Your task to perform on an android device: set default search engine in the chrome app Image 0: 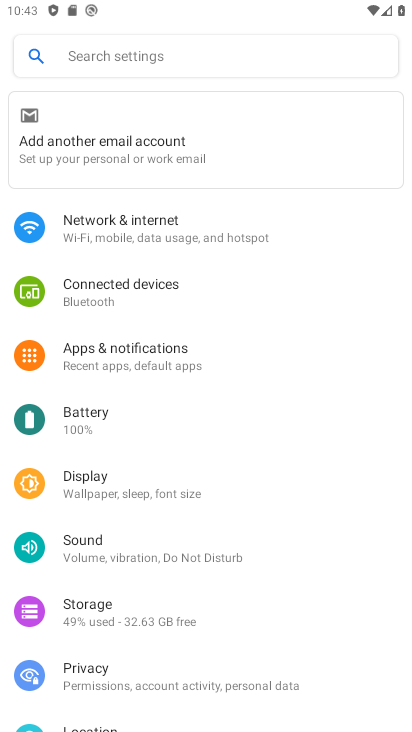
Step 0: press home button
Your task to perform on an android device: set default search engine in the chrome app Image 1: 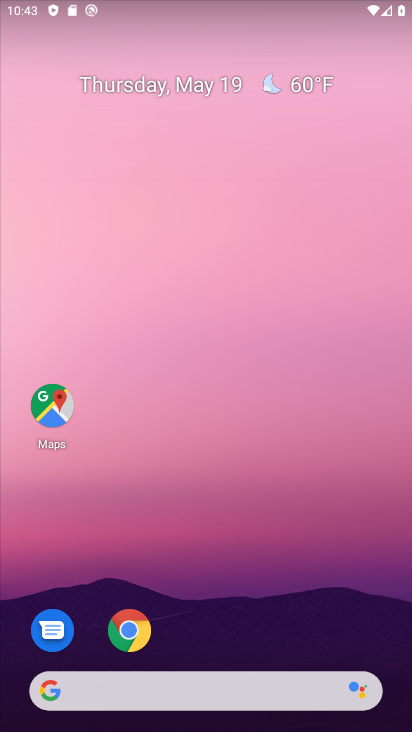
Step 1: click (136, 634)
Your task to perform on an android device: set default search engine in the chrome app Image 2: 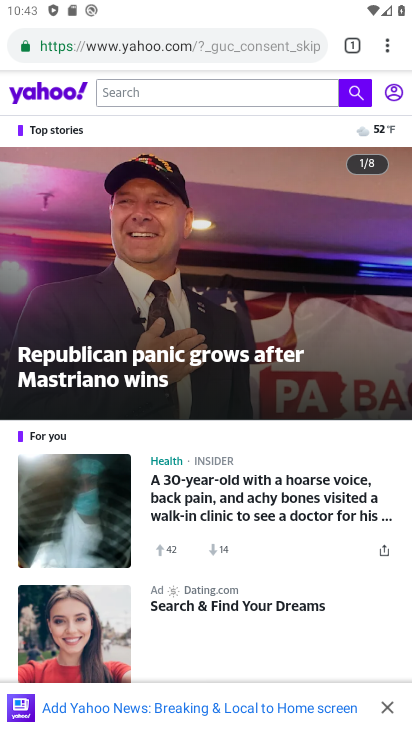
Step 2: click (391, 41)
Your task to perform on an android device: set default search engine in the chrome app Image 3: 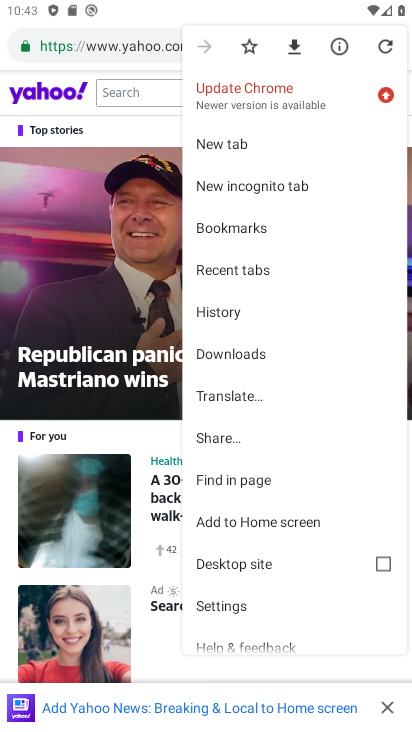
Step 3: click (282, 607)
Your task to perform on an android device: set default search engine in the chrome app Image 4: 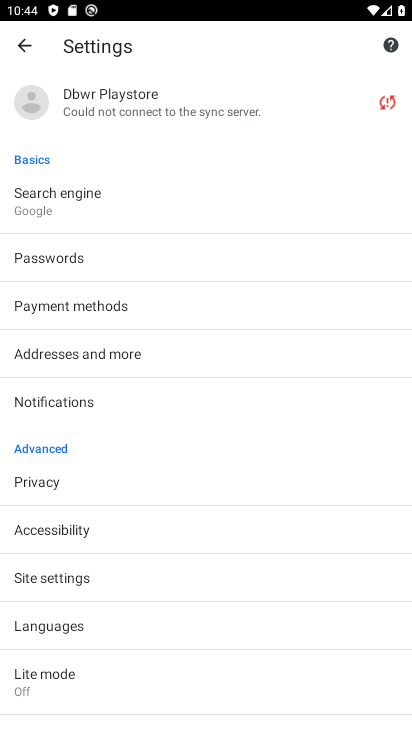
Step 4: click (260, 196)
Your task to perform on an android device: set default search engine in the chrome app Image 5: 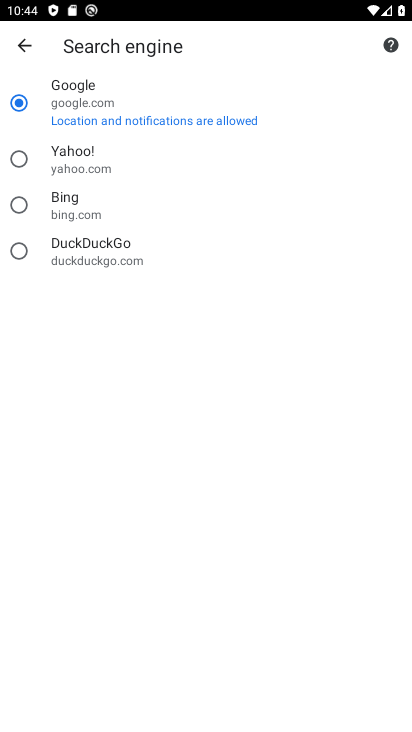
Step 5: click (238, 158)
Your task to perform on an android device: set default search engine in the chrome app Image 6: 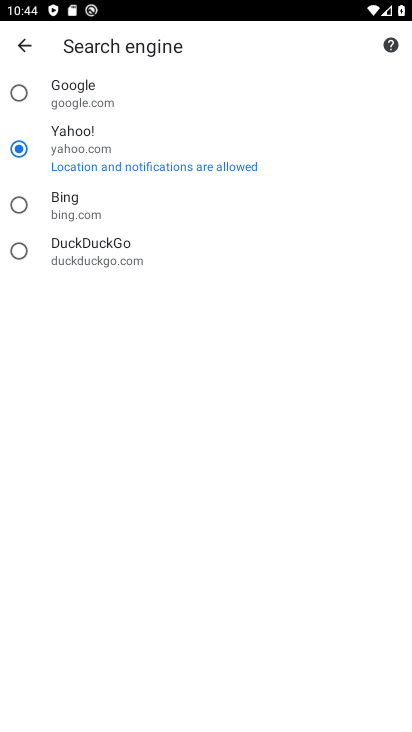
Step 6: task complete